Your task to perform on an android device: check data usage Image 0: 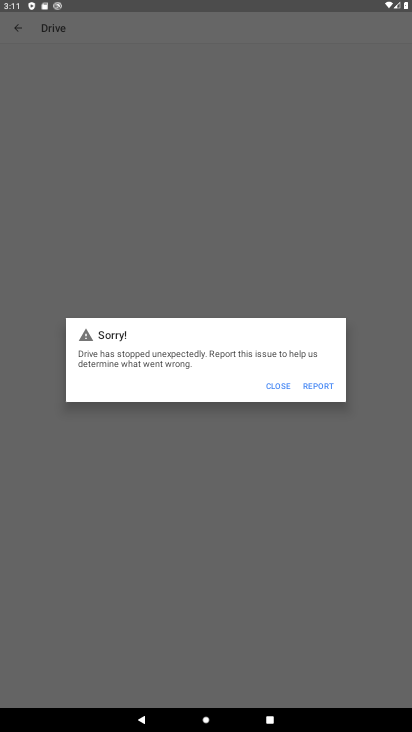
Step 0: press home button
Your task to perform on an android device: check data usage Image 1: 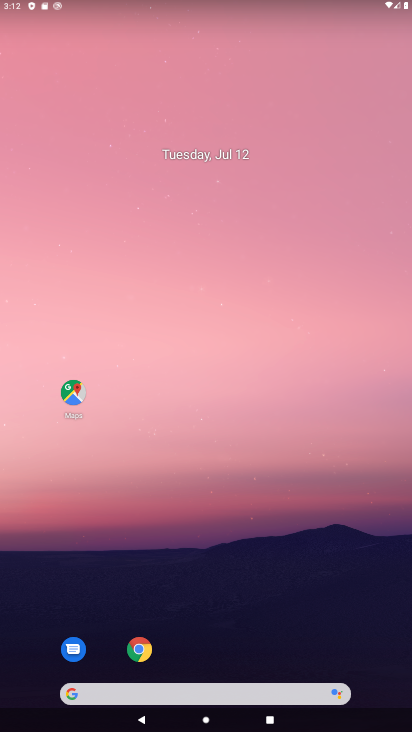
Step 1: drag from (212, 653) to (220, 35)
Your task to perform on an android device: check data usage Image 2: 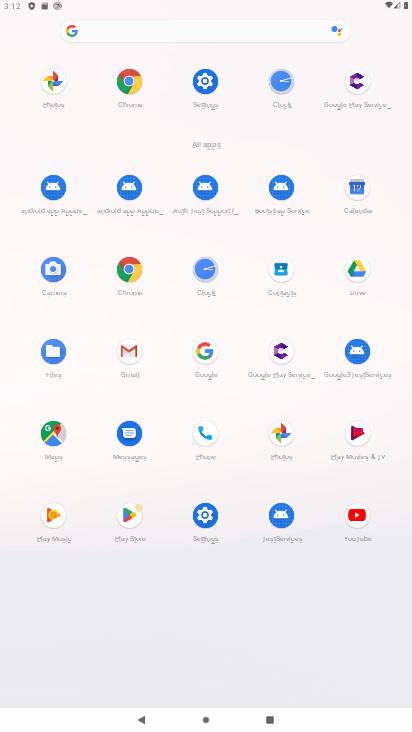
Step 2: click (198, 77)
Your task to perform on an android device: check data usage Image 3: 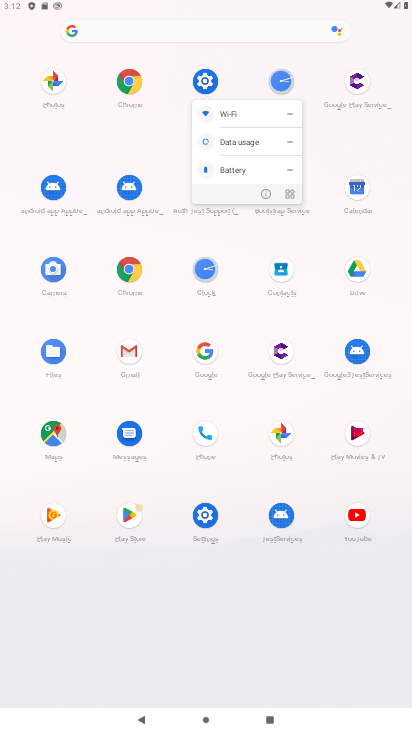
Step 3: click (202, 78)
Your task to perform on an android device: check data usage Image 4: 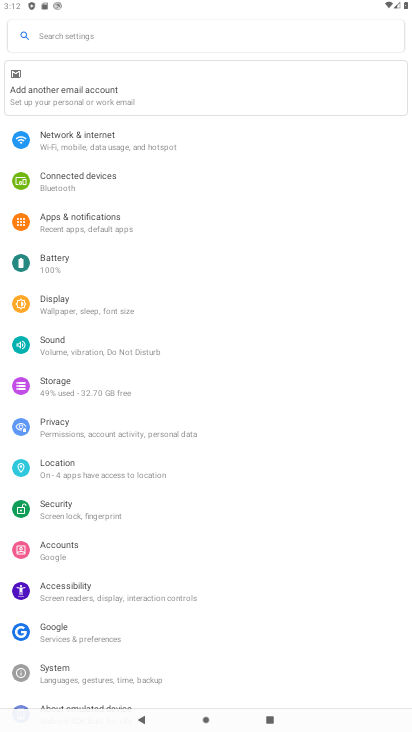
Step 4: click (108, 137)
Your task to perform on an android device: check data usage Image 5: 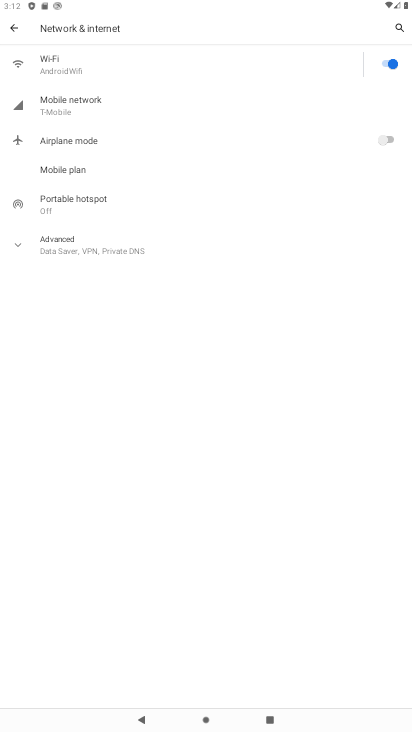
Step 5: click (88, 104)
Your task to perform on an android device: check data usage Image 6: 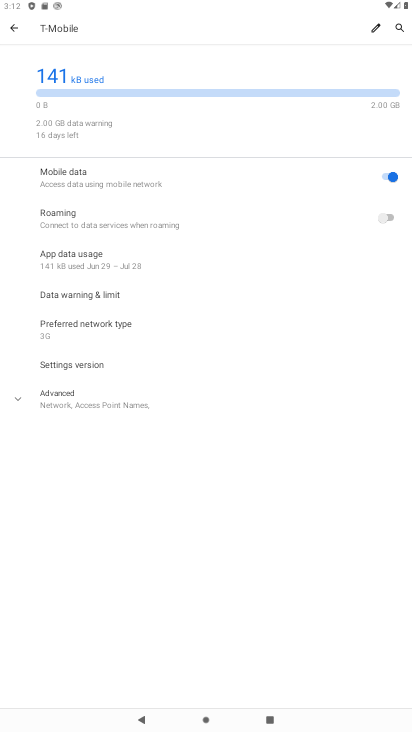
Step 6: click (110, 255)
Your task to perform on an android device: check data usage Image 7: 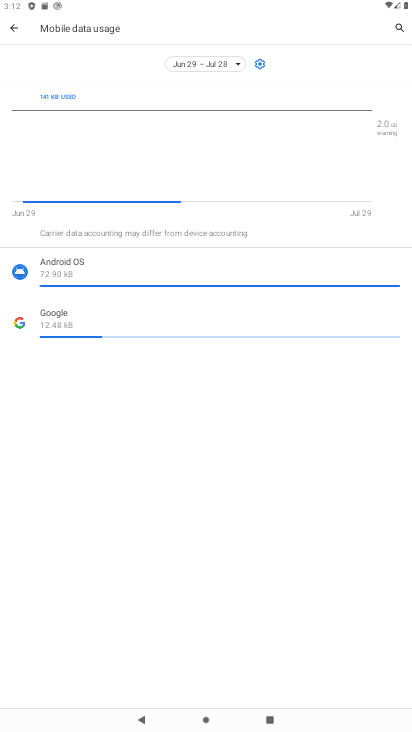
Step 7: task complete